Your task to perform on an android device: toggle notification dots Image 0: 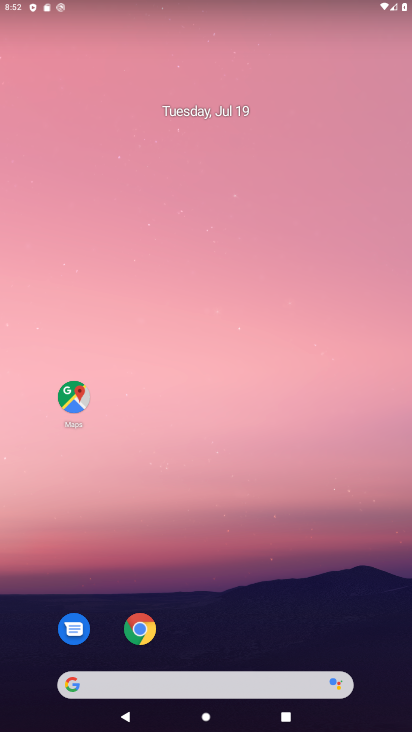
Step 0: drag from (190, 652) to (162, 7)
Your task to perform on an android device: toggle notification dots Image 1: 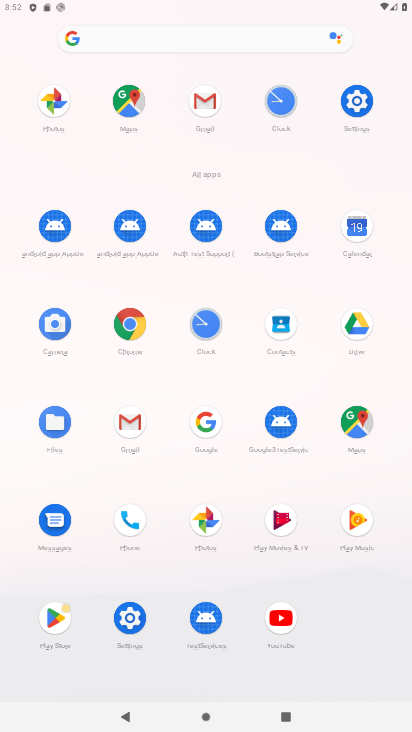
Step 1: click (347, 107)
Your task to perform on an android device: toggle notification dots Image 2: 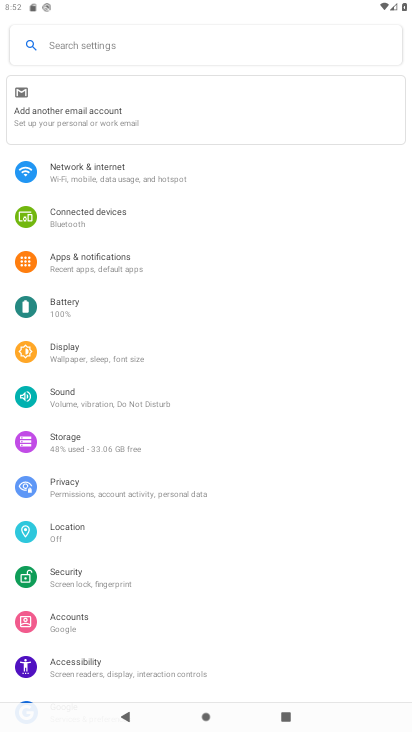
Step 2: click (109, 250)
Your task to perform on an android device: toggle notification dots Image 3: 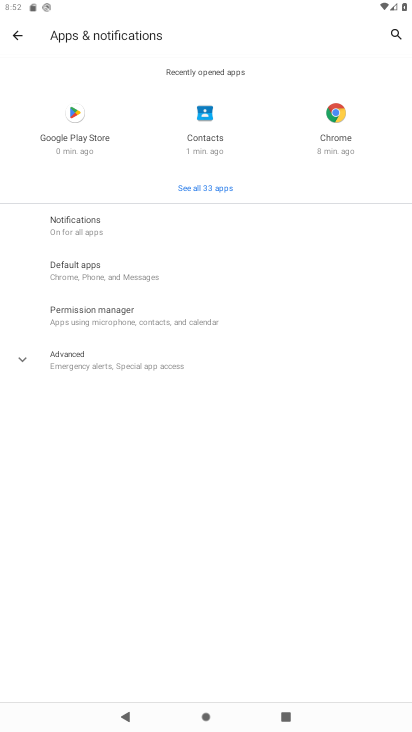
Step 3: click (64, 214)
Your task to perform on an android device: toggle notification dots Image 4: 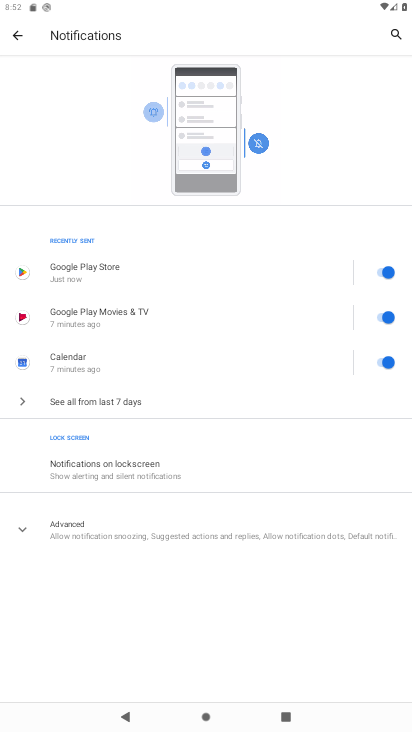
Step 4: click (67, 528)
Your task to perform on an android device: toggle notification dots Image 5: 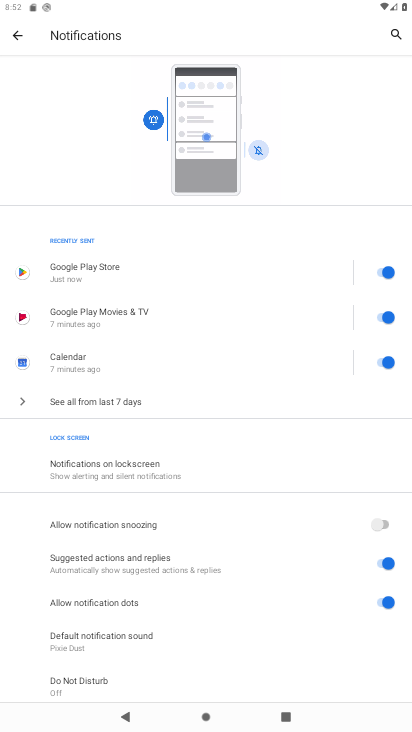
Step 5: click (378, 599)
Your task to perform on an android device: toggle notification dots Image 6: 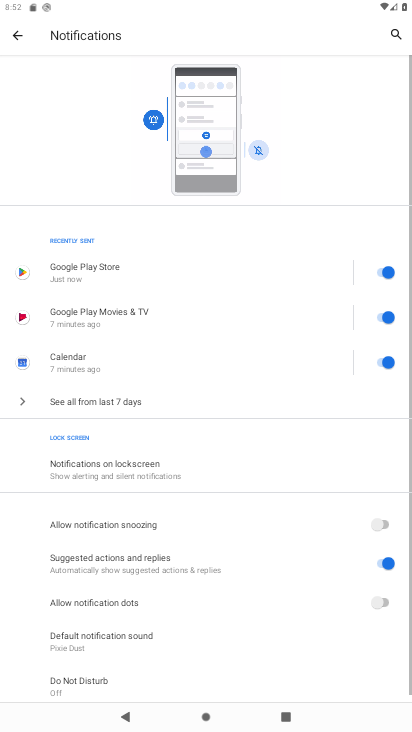
Step 6: task complete